Your task to perform on an android device: Show me popular games on the Play Store Image 0: 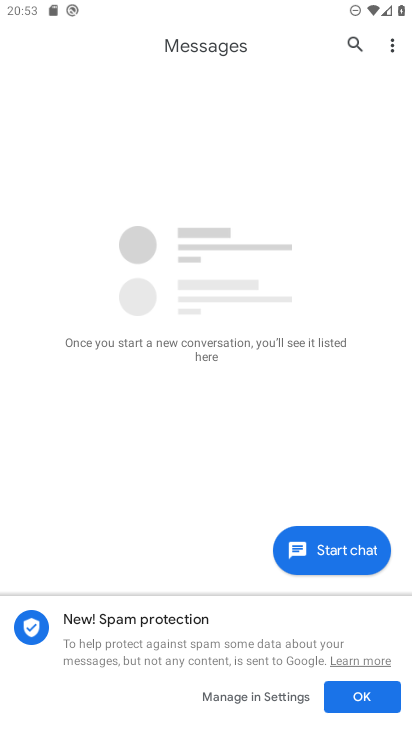
Step 0: press home button
Your task to perform on an android device: Show me popular games on the Play Store Image 1: 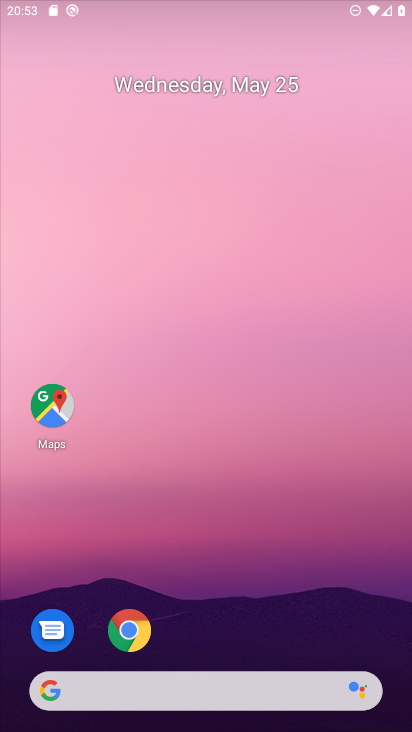
Step 1: drag from (231, 628) to (318, 127)
Your task to perform on an android device: Show me popular games on the Play Store Image 2: 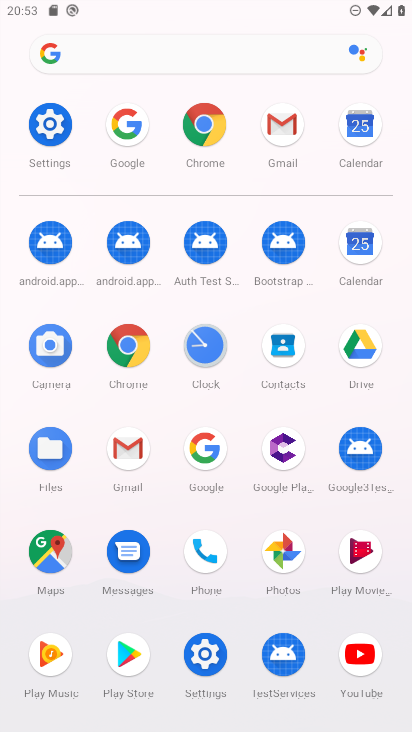
Step 2: click (134, 649)
Your task to perform on an android device: Show me popular games on the Play Store Image 3: 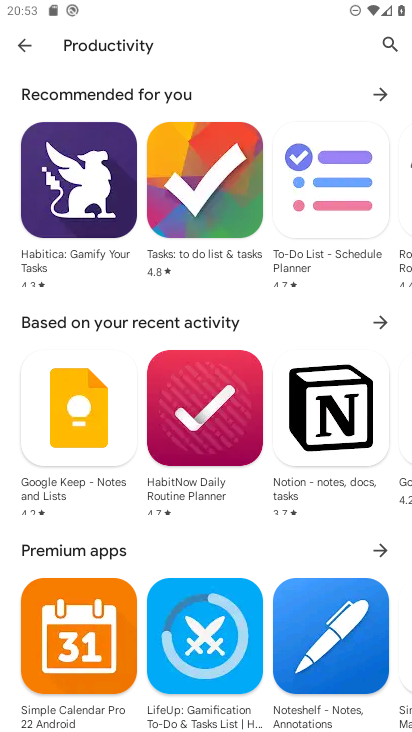
Step 3: press back button
Your task to perform on an android device: Show me popular games on the Play Store Image 4: 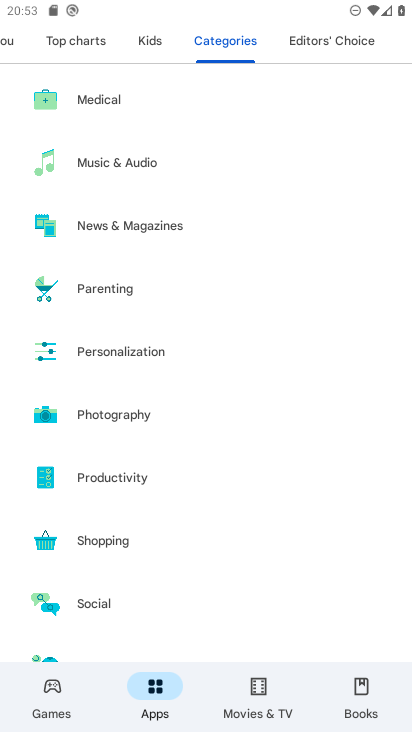
Step 4: press back button
Your task to perform on an android device: Show me popular games on the Play Store Image 5: 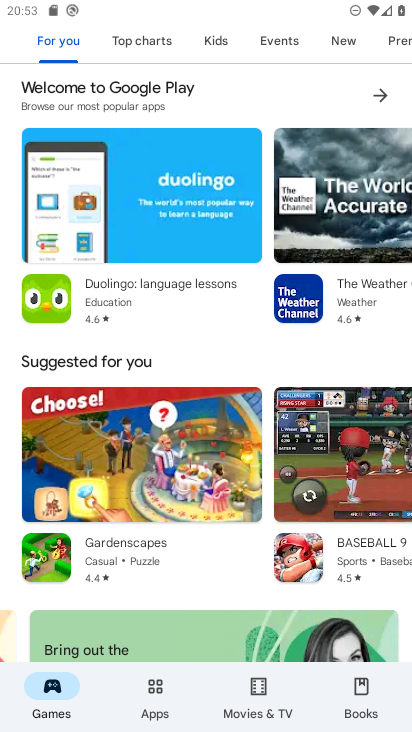
Step 5: drag from (258, 514) to (278, 170)
Your task to perform on an android device: Show me popular games on the Play Store Image 6: 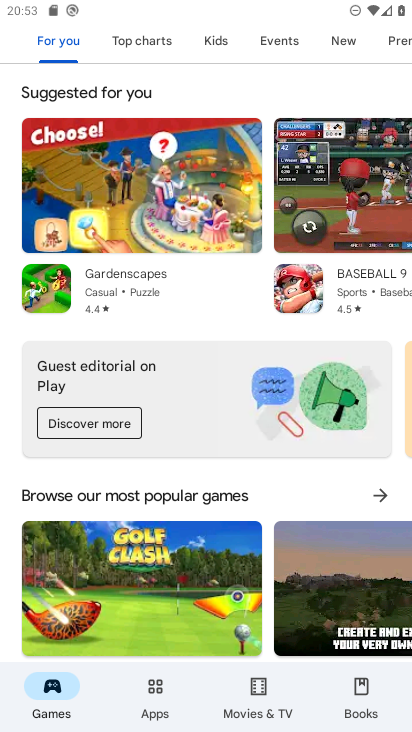
Step 6: click (305, 502)
Your task to perform on an android device: Show me popular games on the Play Store Image 7: 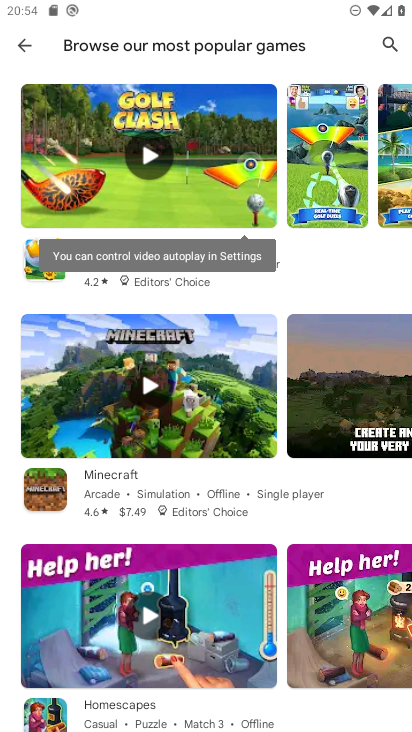
Step 7: task complete